Your task to perform on an android device: open chrome and create a bookmark for the current page Image 0: 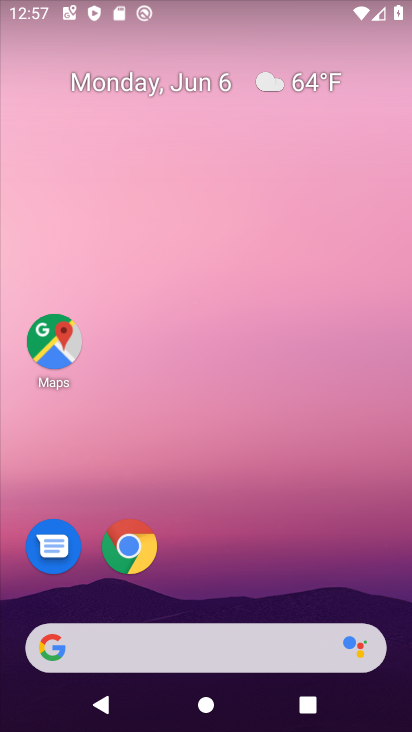
Step 0: click (140, 539)
Your task to perform on an android device: open chrome and create a bookmark for the current page Image 1: 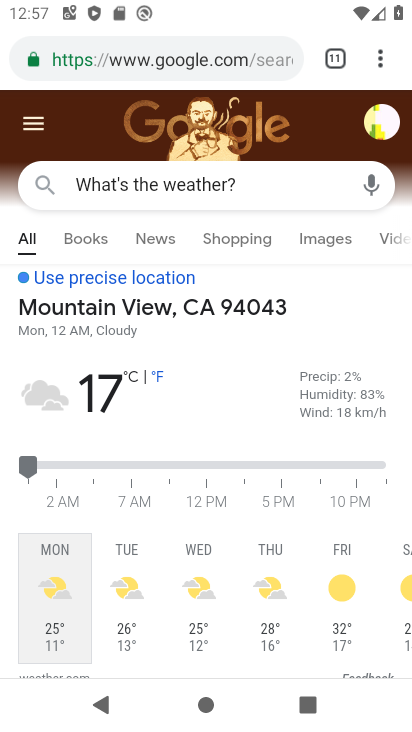
Step 1: click (359, 55)
Your task to perform on an android device: open chrome and create a bookmark for the current page Image 2: 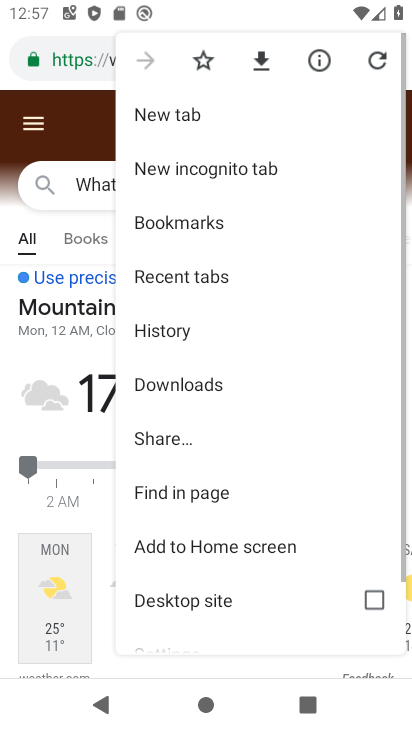
Step 2: click (213, 53)
Your task to perform on an android device: open chrome and create a bookmark for the current page Image 3: 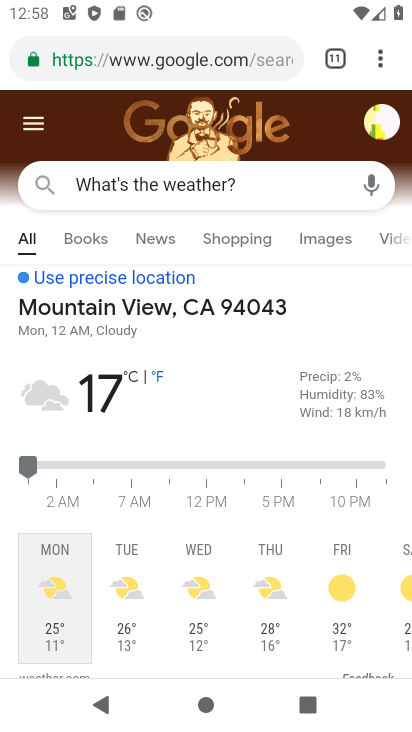
Step 3: click (364, 48)
Your task to perform on an android device: open chrome and create a bookmark for the current page Image 4: 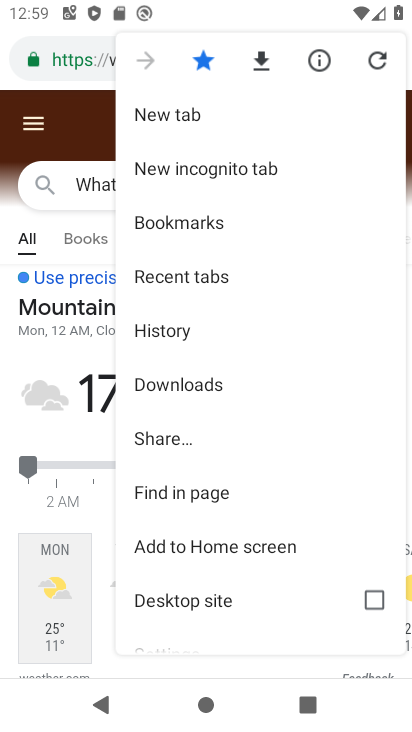
Step 4: task complete